Your task to perform on an android device: Go to Maps Image 0: 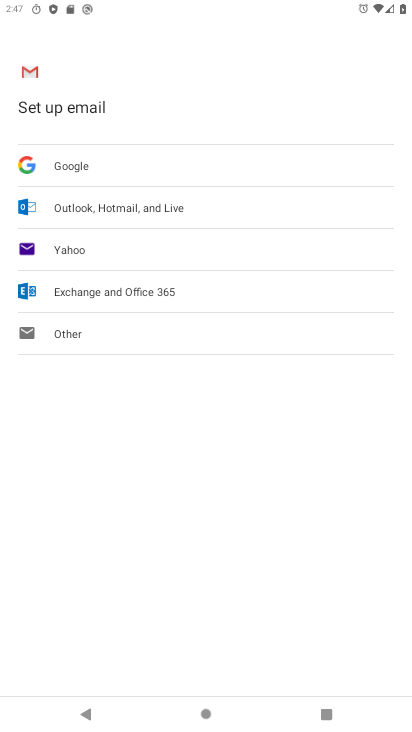
Step 0: press home button
Your task to perform on an android device: Go to Maps Image 1: 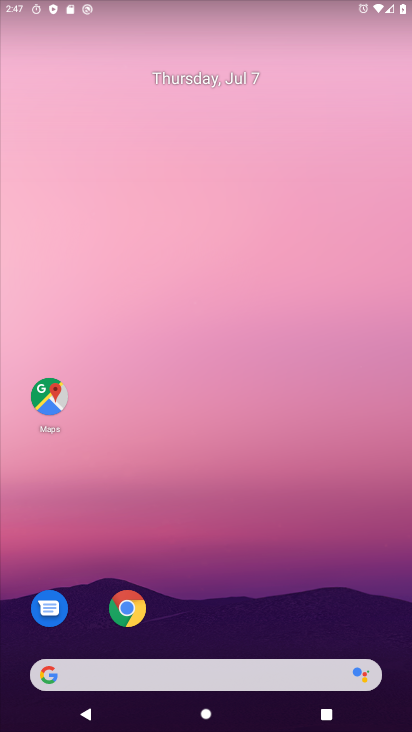
Step 1: drag from (256, 721) to (269, 60)
Your task to perform on an android device: Go to Maps Image 2: 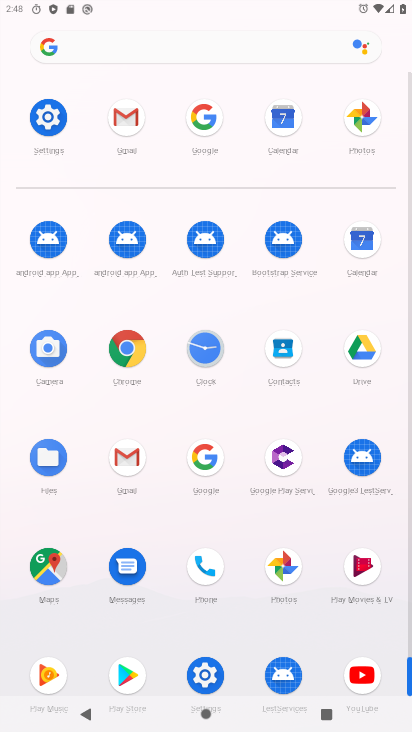
Step 2: click (50, 569)
Your task to perform on an android device: Go to Maps Image 3: 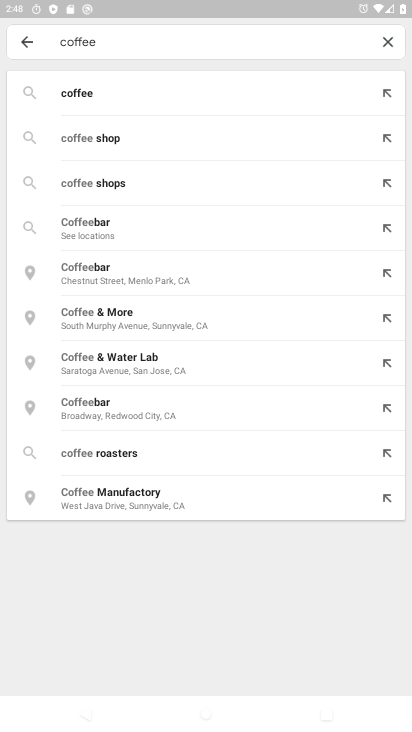
Step 3: task complete